Your task to perform on an android device: install app "Venmo" Image 0: 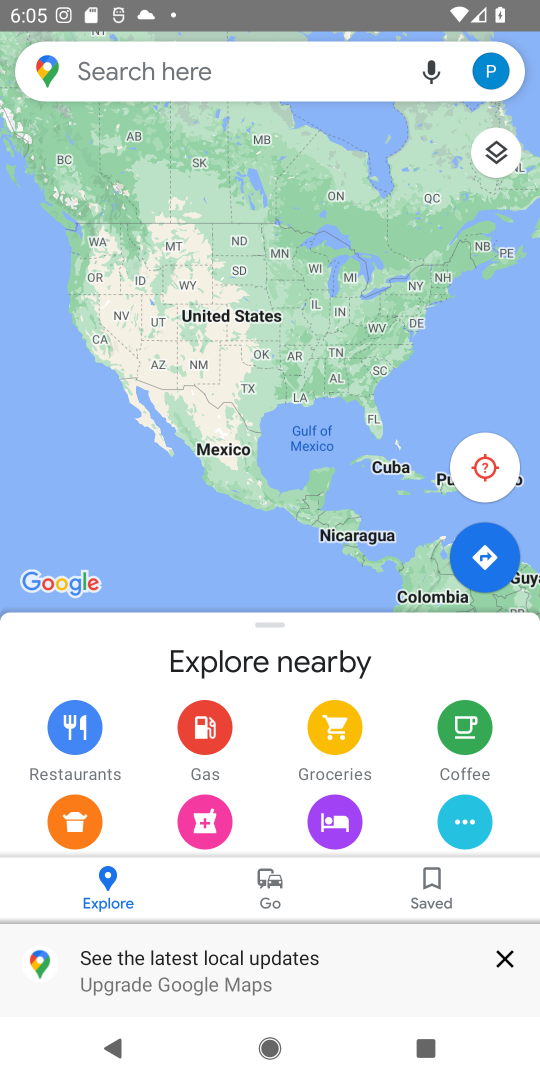
Step 0: press home button
Your task to perform on an android device: install app "Venmo" Image 1: 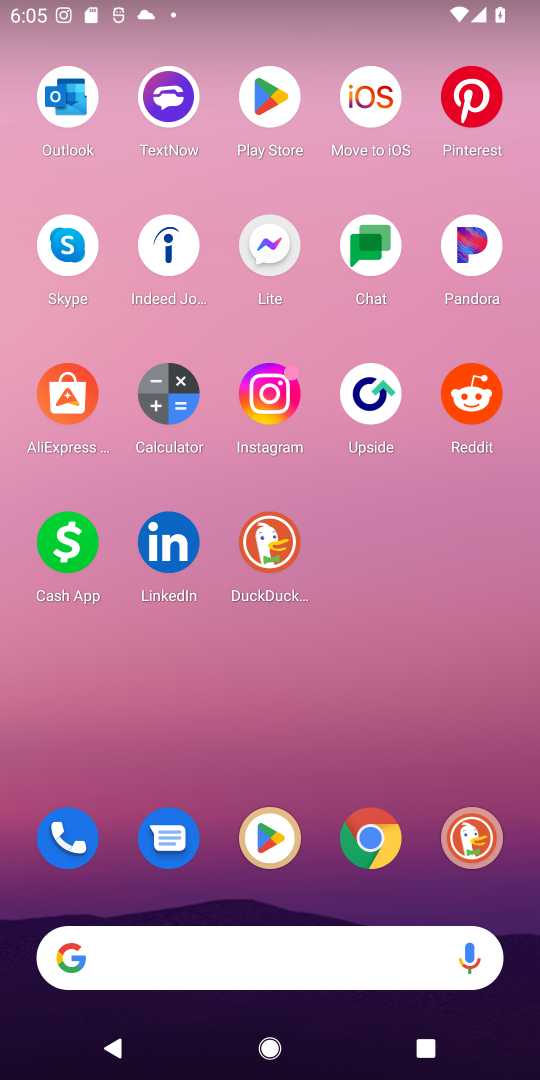
Step 1: click (265, 102)
Your task to perform on an android device: install app "Venmo" Image 2: 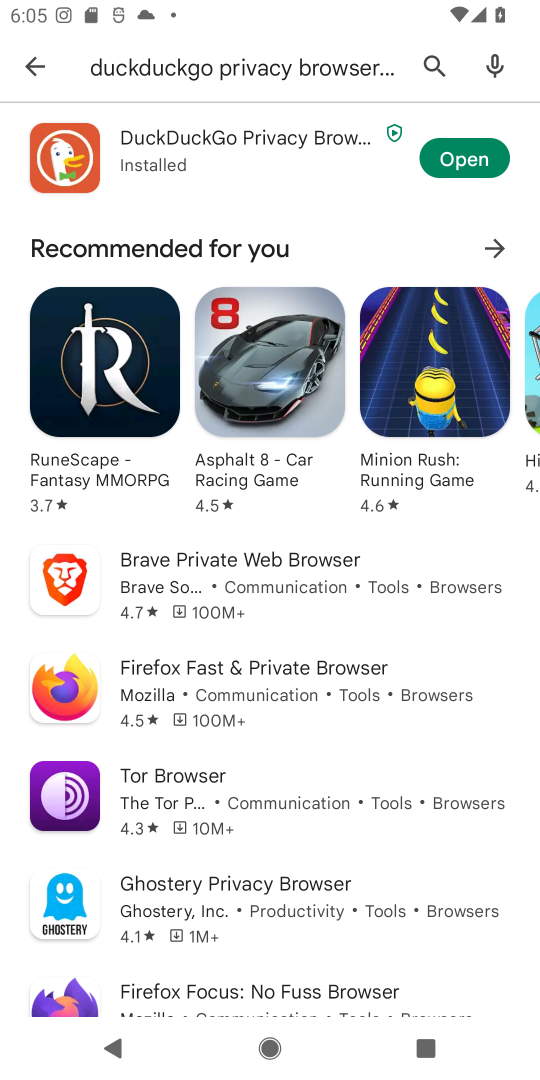
Step 2: click (432, 60)
Your task to perform on an android device: install app "Venmo" Image 3: 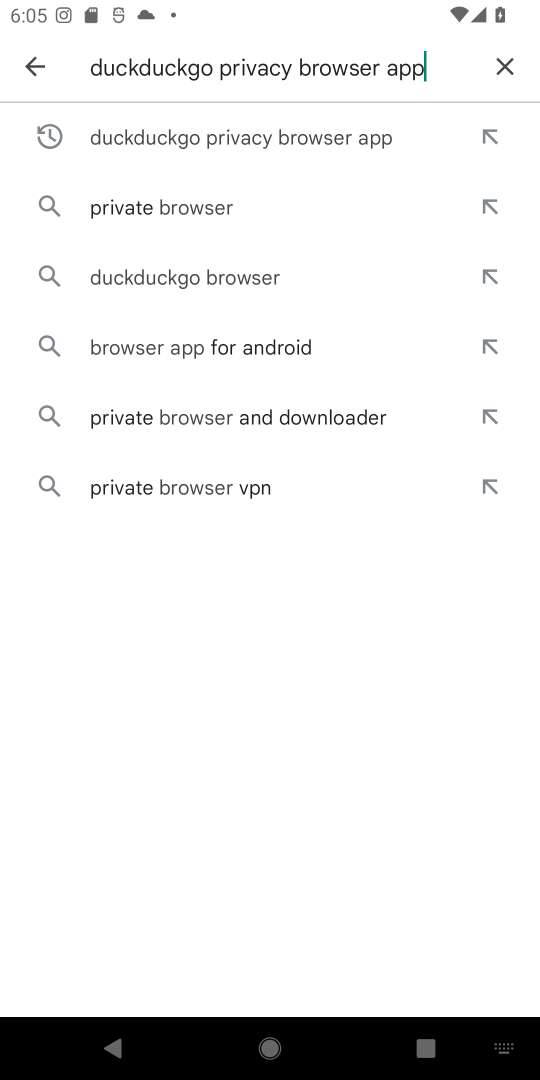
Step 3: click (506, 66)
Your task to perform on an android device: install app "Venmo" Image 4: 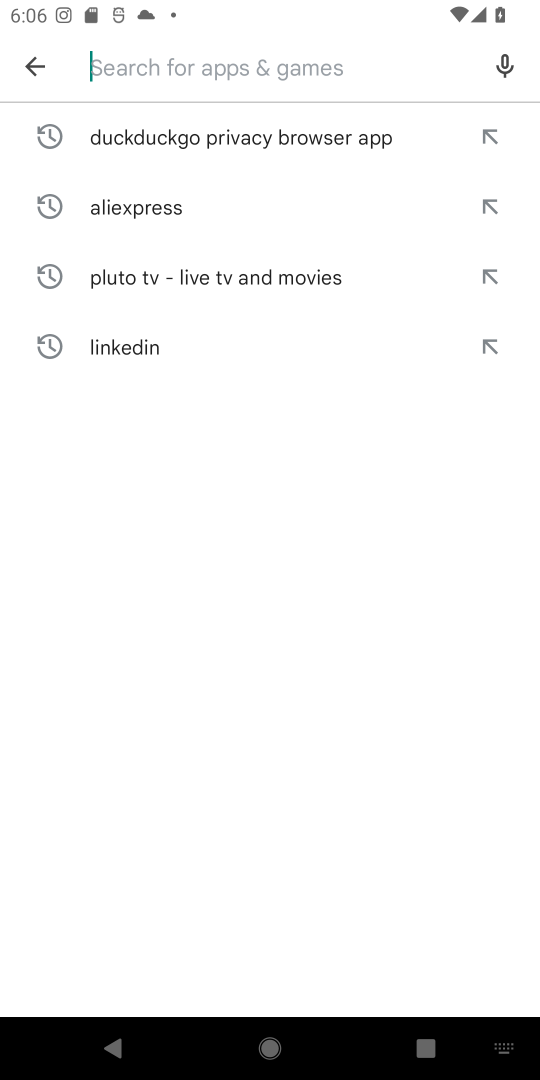
Step 4: type "Venmo"
Your task to perform on an android device: install app "Venmo" Image 5: 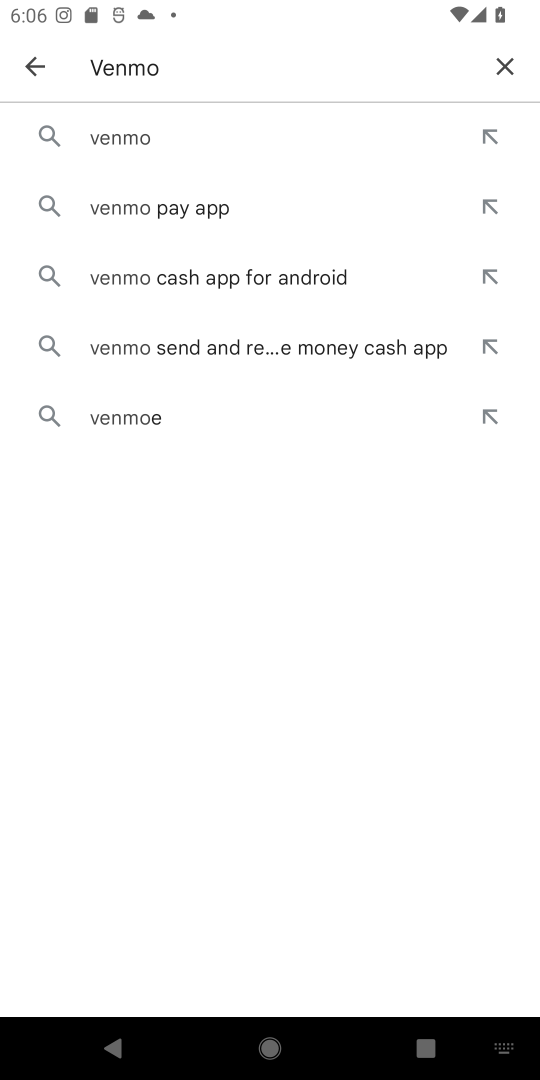
Step 5: click (129, 140)
Your task to perform on an android device: install app "Venmo" Image 6: 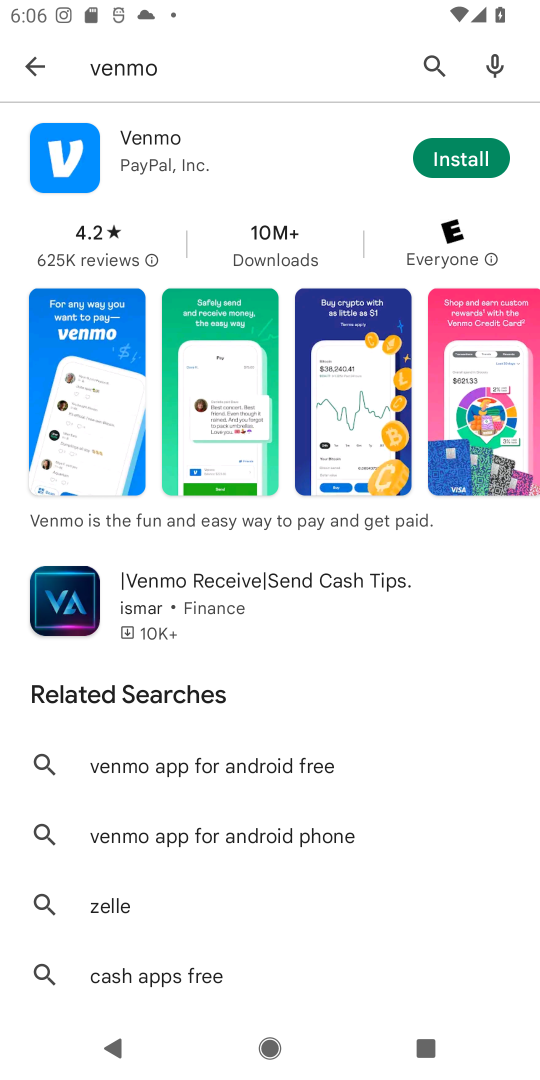
Step 6: click (452, 150)
Your task to perform on an android device: install app "Venmo" Image 7: 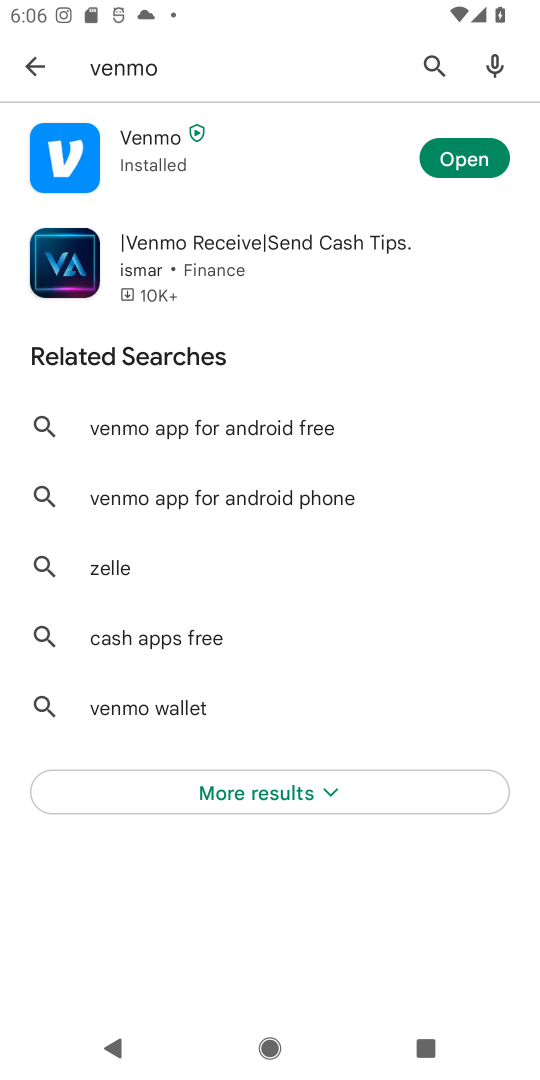
Step 7: click (169, 149)
Your task to perform on an android device: install app "Venmo" Image 8: 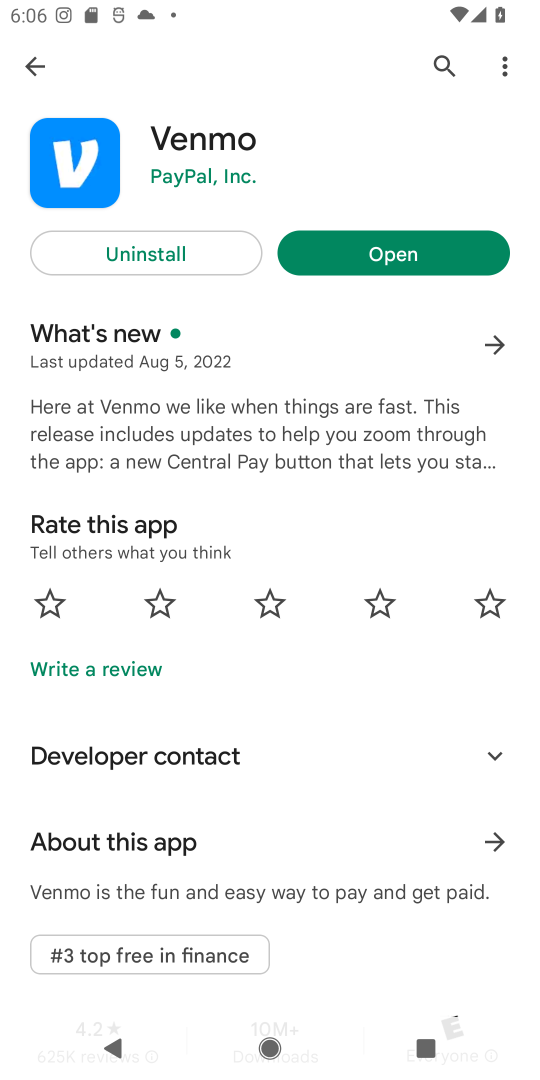
Step 8: task complete